Your task to perform on an android device: Open Google Image 0: 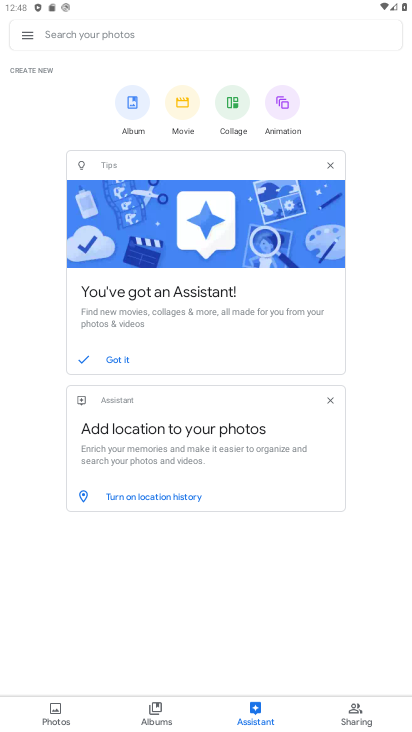
Step 0: press home button
Your task to perform on an android device: Open Google Image 1: 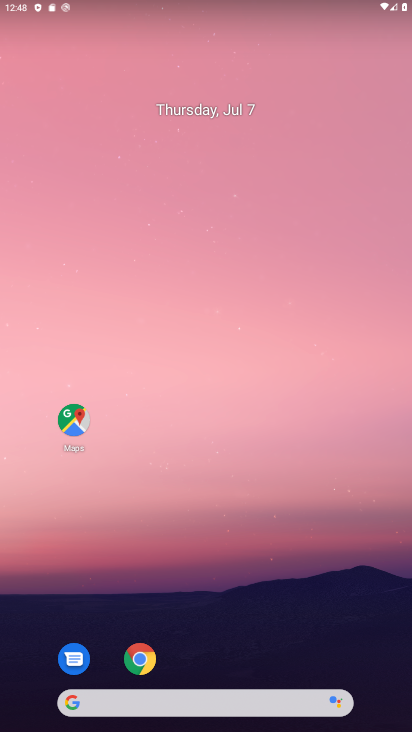
Step 1: drag from (178, 683) to (299, 25)
Your task to perform on an android device: Open Google Image 2: 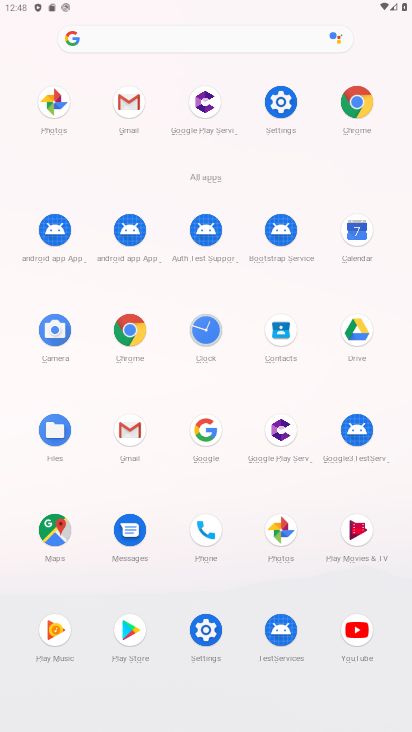
Step 2: click (210, 426)
Your task to perform on an android device: Open Google Image 3: 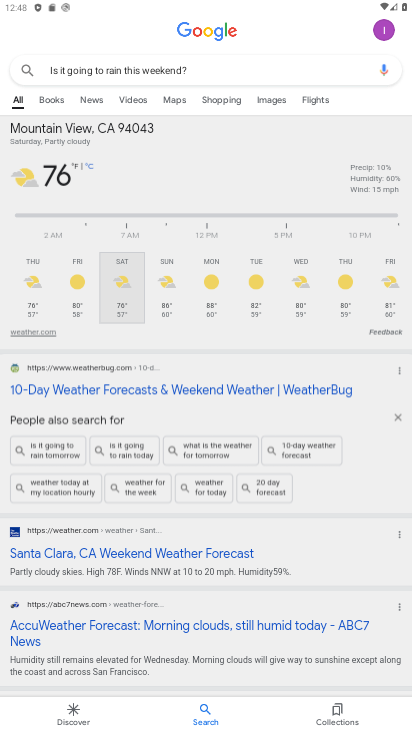
Step 3: task complete